Your task to perform on an android device: Go to eBay Image 0: 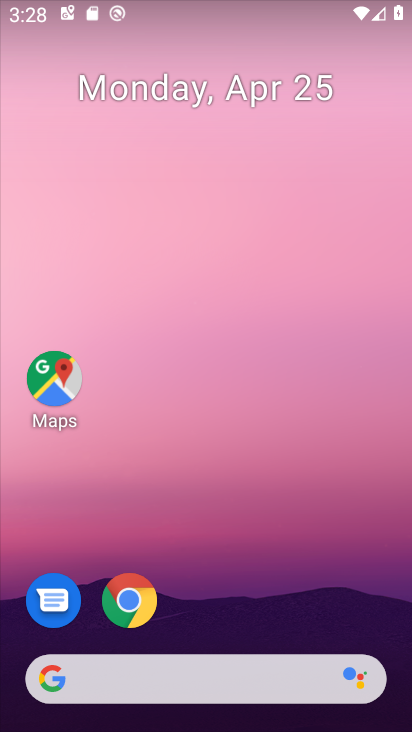
Step 0: drag from (240, 533) to (241, 71)
Your task to perform on an android device: Go to eBay Image 1: 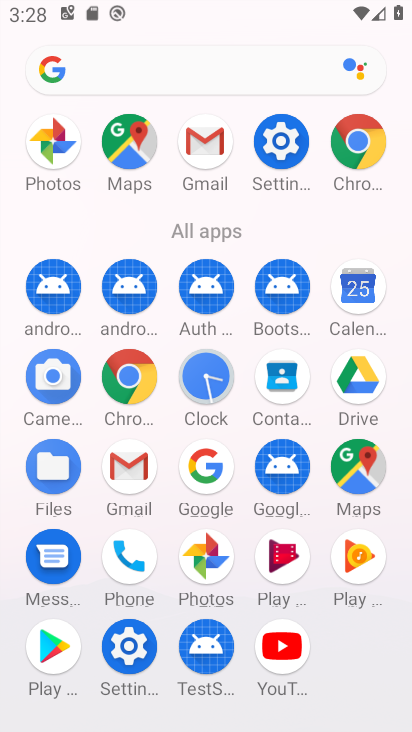
Step 1: drag from (0, 472) to (4, 287)
Your task to perform on an android device: Go to eBay Image 2: 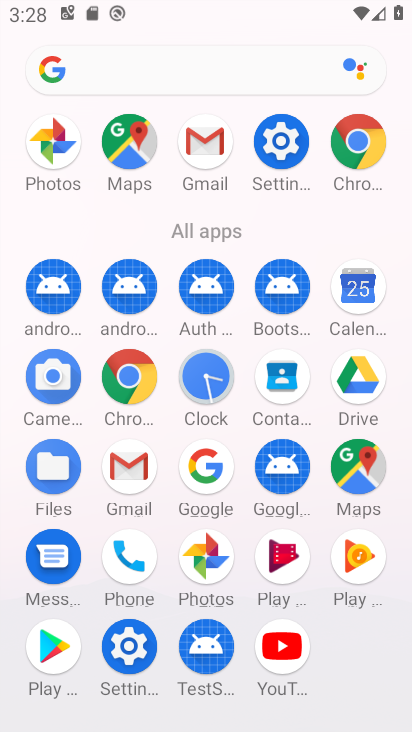
Step 2: click (352, 137)
Your task to perform on an android device: Go to eBay Image 3: 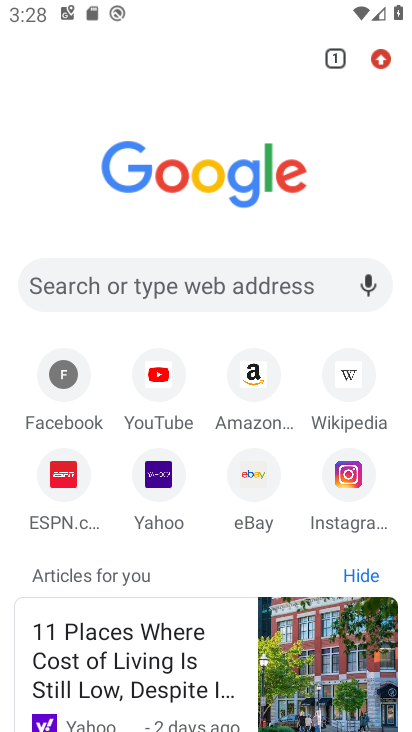
Step 3: click (250, 473)
Your task to perform on an android device: Go to eBay Image 4: 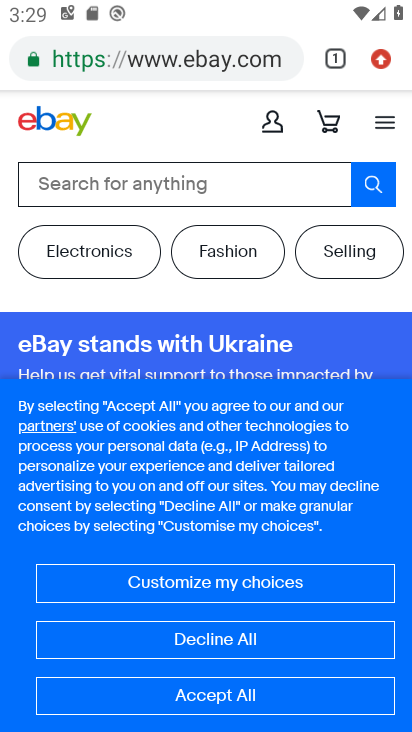
Step 4: task complete